Your task to perform on an android device: Go to sound settings Image 0: 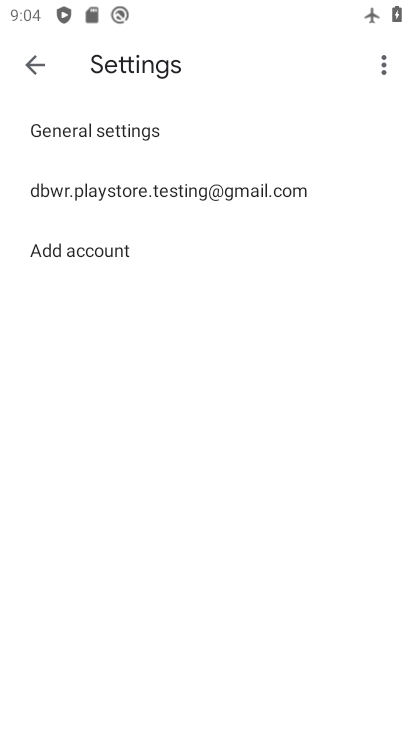
Step 0: press home button
Your task to perform on an android device: Go to sound settings Image 1: 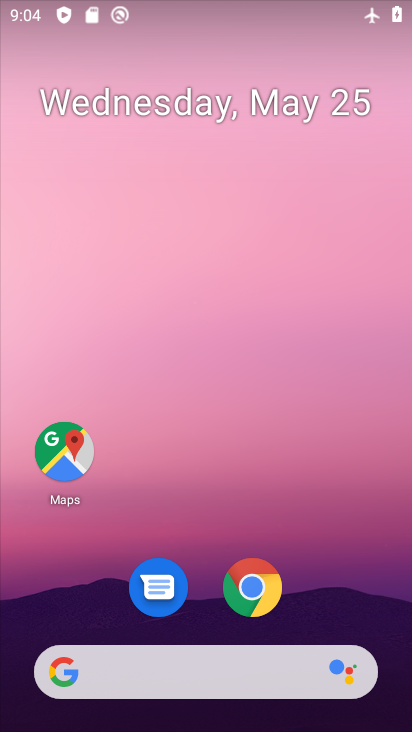
Step 1: drag from (205, 615) to (214, 12)
Your task to perform on an android device: Go to sound settings Image 2: 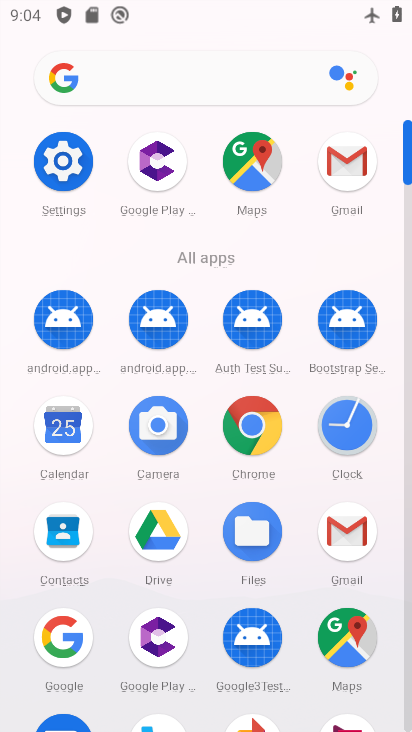
Step 2: click (64, 168)
Your task to perform on an android device: Go to sound settings Image 3: 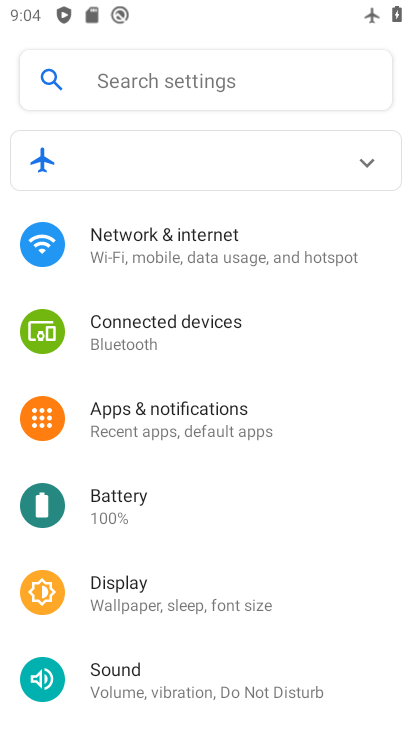
Step 3: click (167, 695)
Your task to perform on an android device: Go to sound settings Image 4: 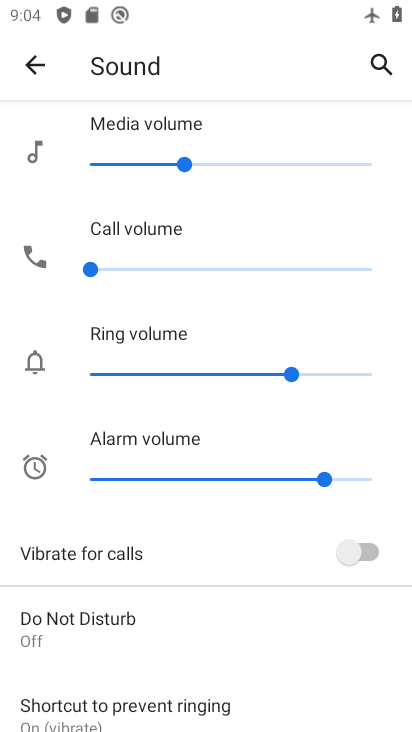
Step 4: task complete